Your task to perform on an android device: Go to Android settings Image 0: 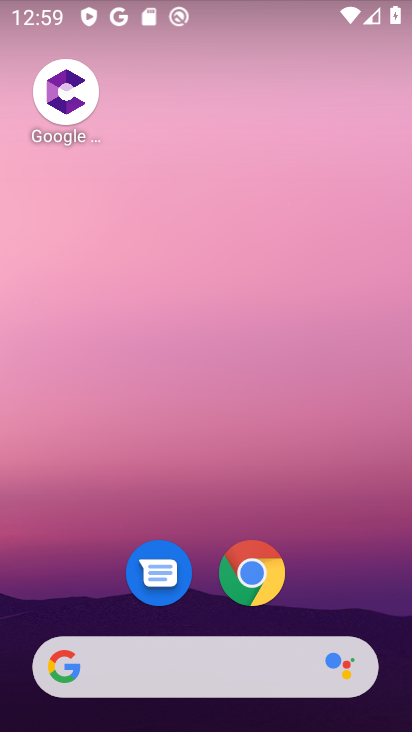
Step 0: drag from (192, 633) to (115, 18)
Your task to perform on an android device: Go to Android settings Image 1: 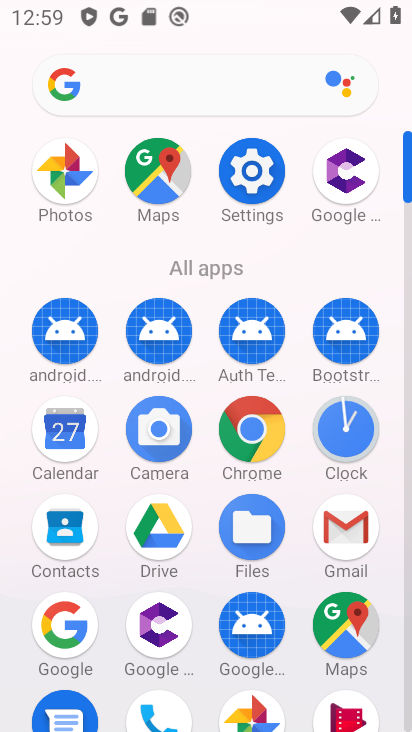
Step 1: click (248, 152)
Your task to perform on an android device: Go to Android settings Image 2: 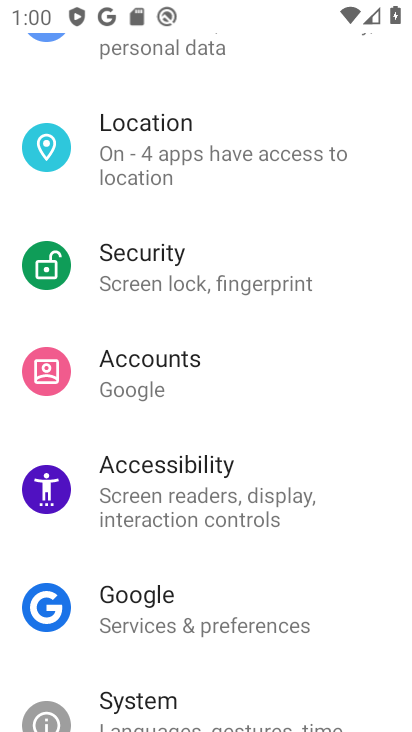
Step 2: task complete